Your task to perform on an android device: What's on my calendar today? Image 0: 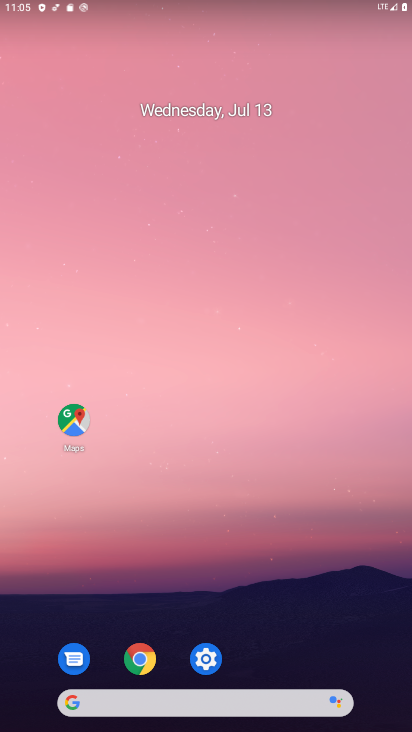
Step 0: drag from (287, 718) to (230, 4)
Your task to perform on an android device: What's on my calendar today? Image 1: 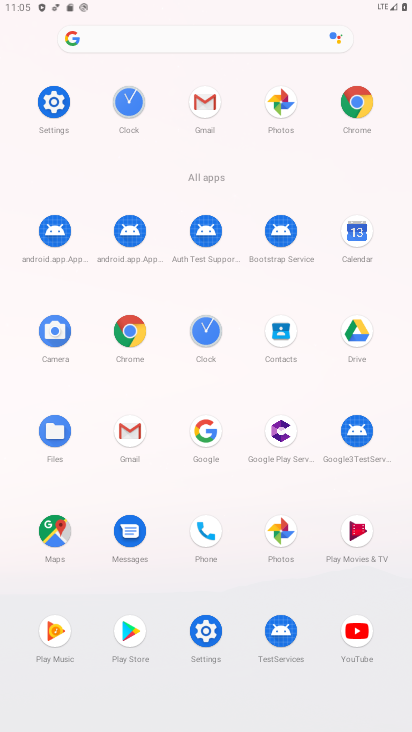
Step 1: click (354, 234)
Your task to perform on an android device: What's on my calendar today? Image 2: 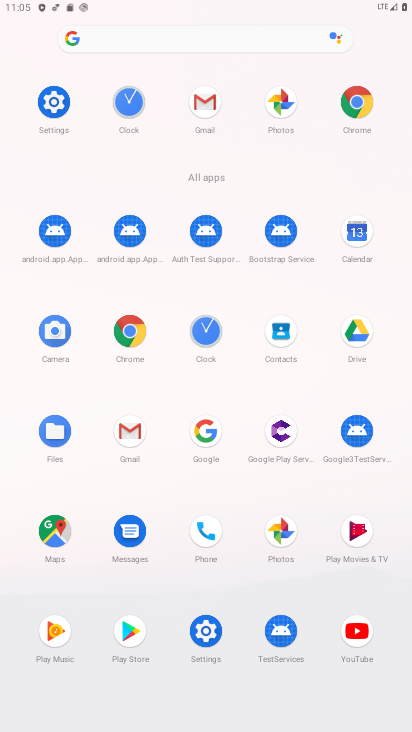
Step 2: click (354, 234)
Your task to perform on an android device: What's on my calendar today? Image 3: 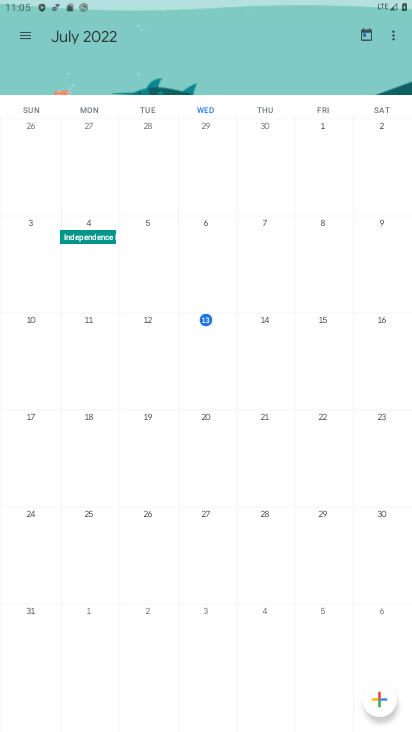
Step 3: click (356, 233)
Your task to perform on an android device: What's on my calendar today? Image 4: 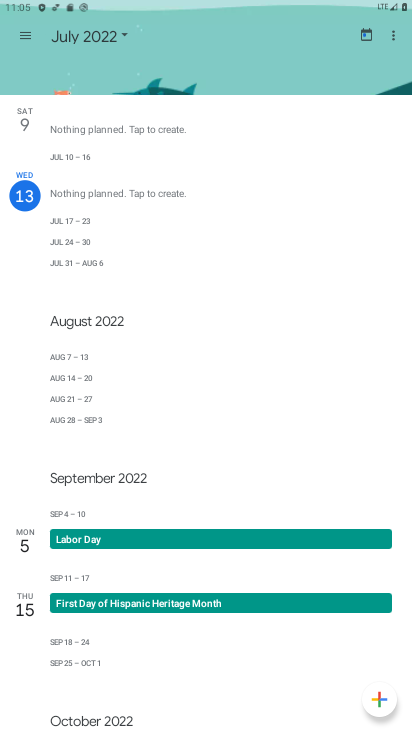
Step 4: click (121, 30)
Your task to perform on an android device: What's on my calendar today? Image 5: 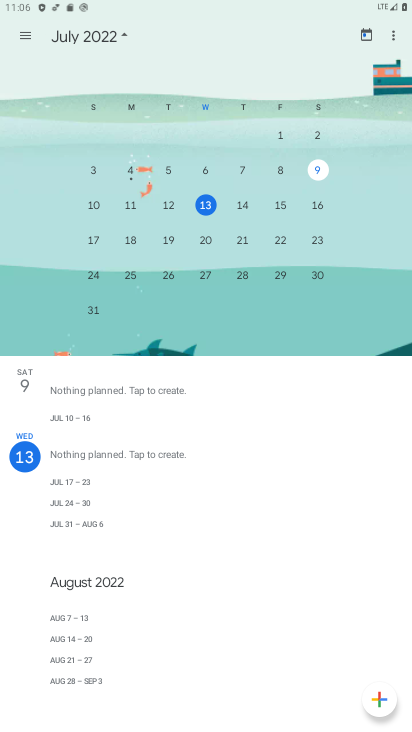
Step 5: click (240, 201)
Your task to perform on an android device: What's on my calendar today? Image 6: 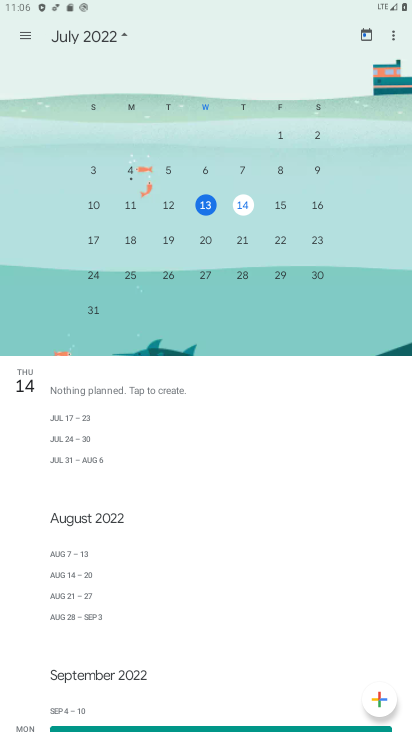
Step 6: click (240, 201)
Your task to perform on an android device: What's on my calendar today? Image 7: 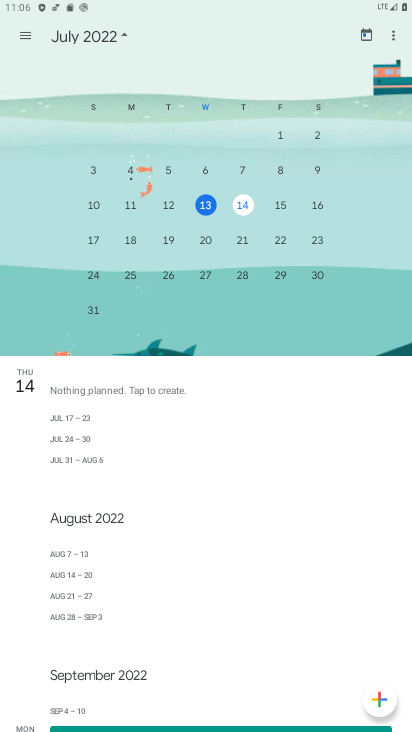
Step 7: click (244, 199)
Your task to perform on an android device: What's on my calendar today? Image 8: 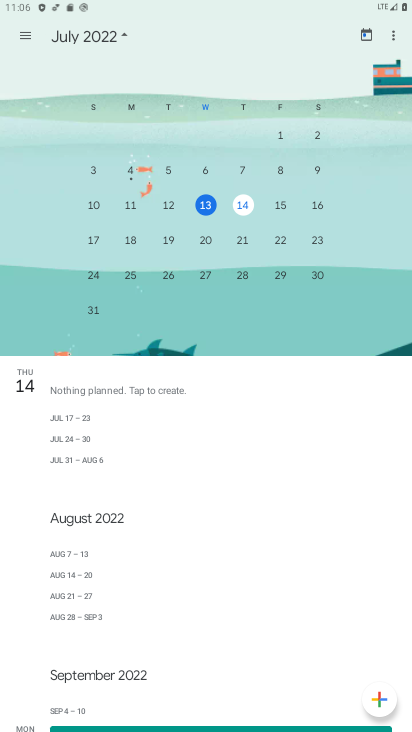
Step 8: task complete